Your task to perform on an android device: turn off location history Image 0: 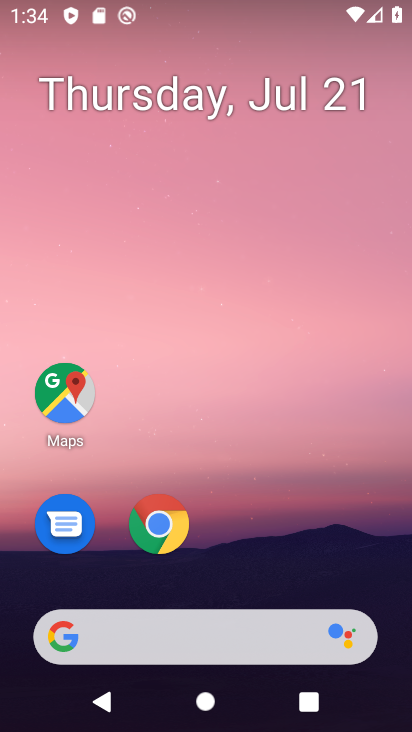
Step 0: drag from (269, 502) to (256, 2)
Your task to perform on an android device: turn off location history Image 1: 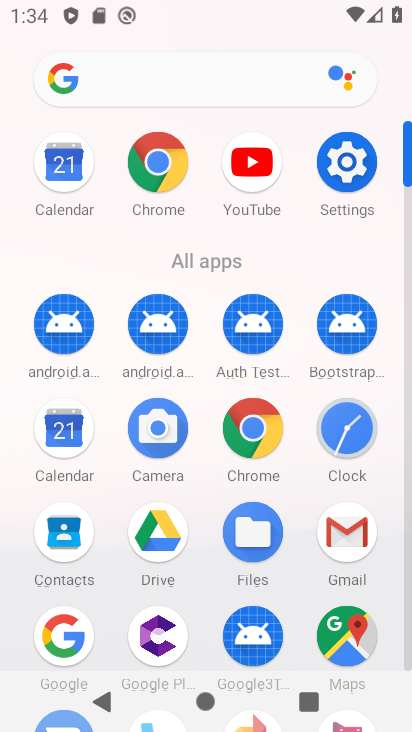
Step 1: click (349, 165)
Your task to perform on an android device: turn off location history Image 2: 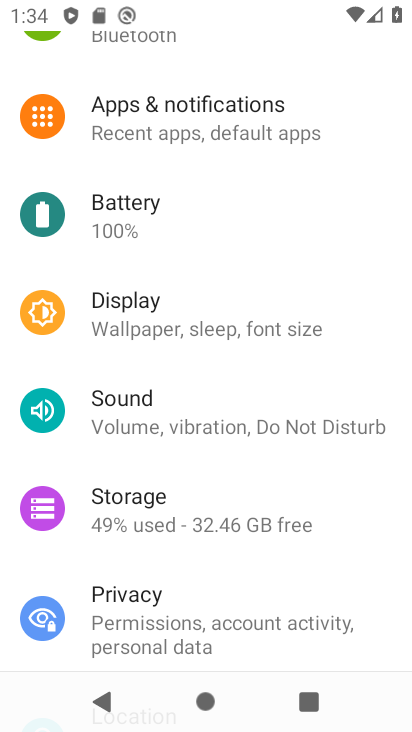
Step 2: drag from (236, 558) to (242, 75)
Your task to perform on an android device: turn off location history Image 3: 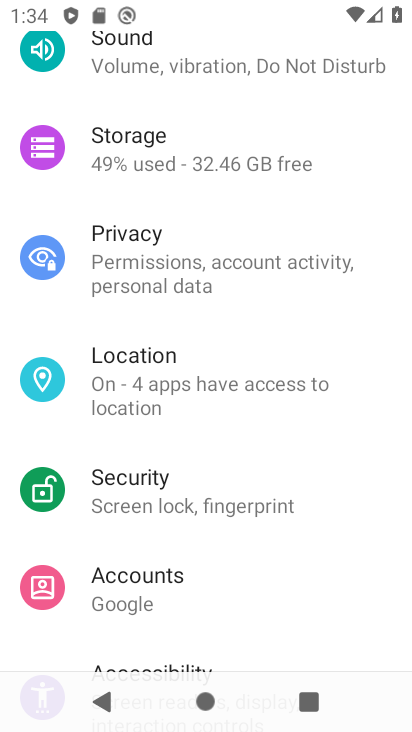
Step 3: click (208, 371)
Your task to perform on an android device: turn off location history Image 4: 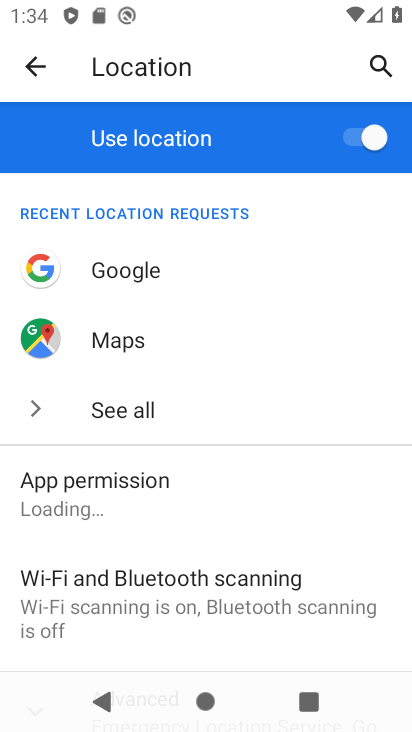
Step 4: drag from (201, 509) to (203, 147)
Your task to perform on an android device: turn off location history Image 5: 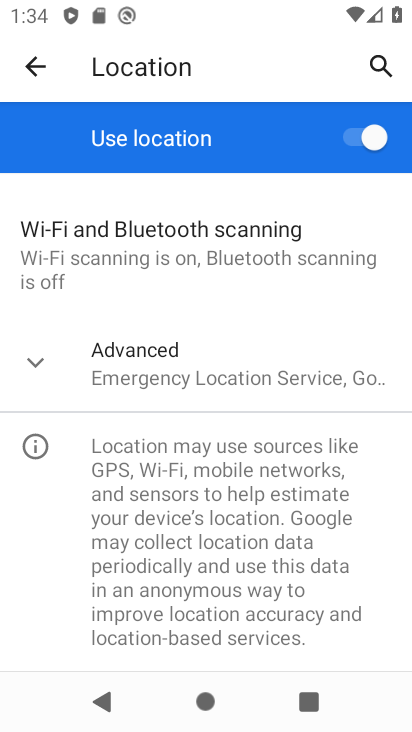
Step 5: click (35, 360)
Your task to perform on an android device: turn off location history Image 6: 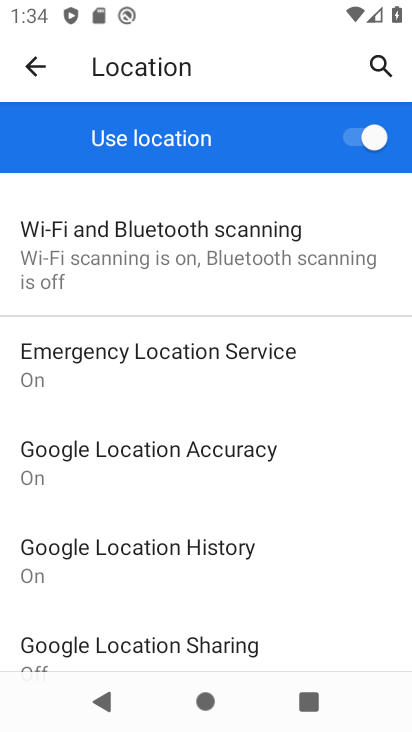
Step 6: click (176, 547)
Your task to perform on an android device: turn off location history Image 7: 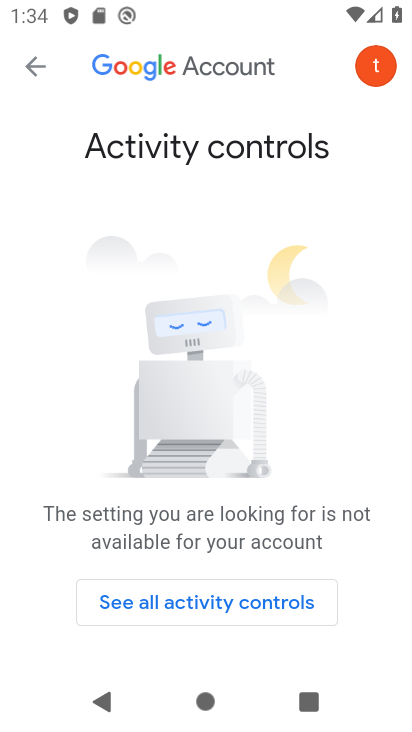
Step 7: click (177, 593)
Your task to perform on an android device: turn off location history Image 8: 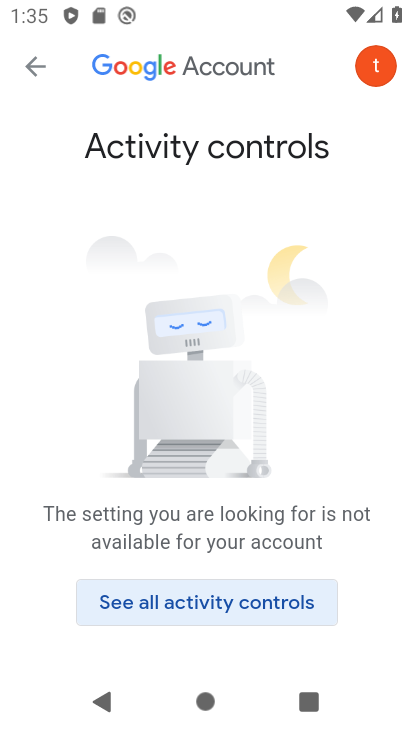
Step 8: click (245, 593)
Your task to perform on an android device: turn off location history Image 9: 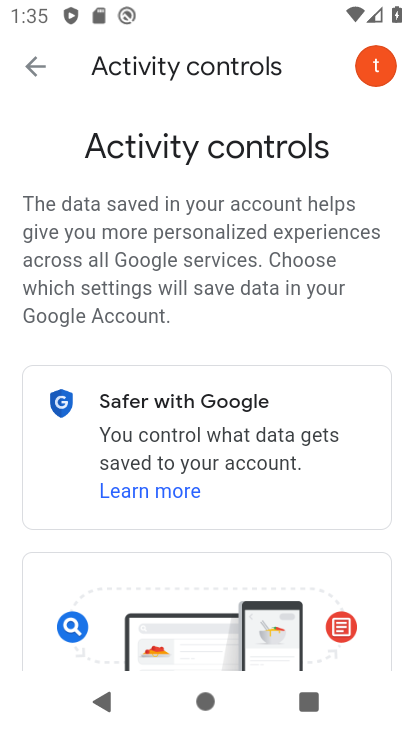
Step 9: drag from (241, 546) to (238, 148)
Your task to perform on an android device: turn off location history Image 10: 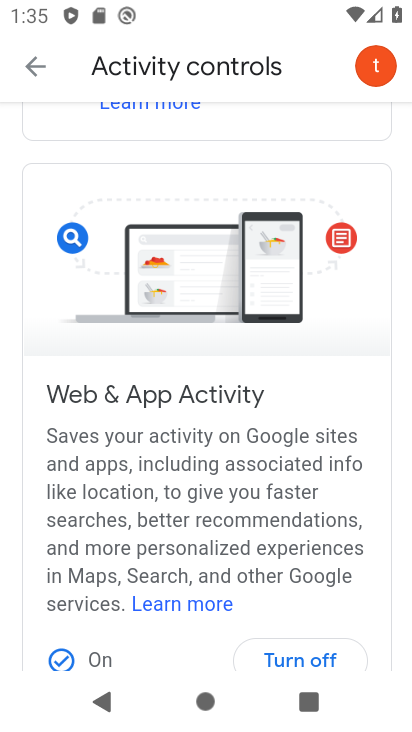
Step 10: drag from (223, 537) to (228, 352)
Your task to perform on an android device: turn off location history Image 11: 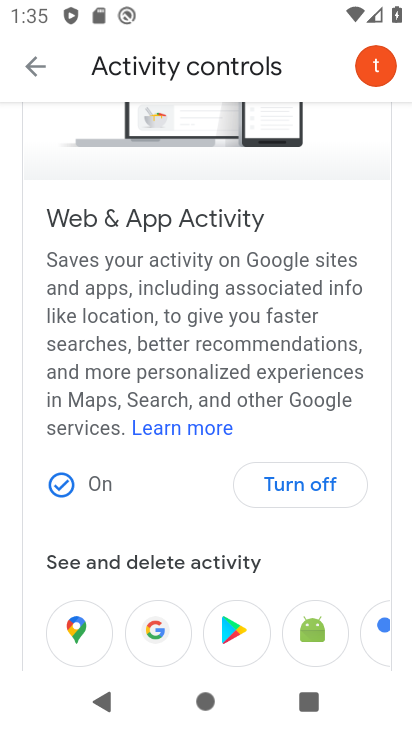
Step 11: click (296, 478)
Your task to perform on an android device: turn off location history Image 12: 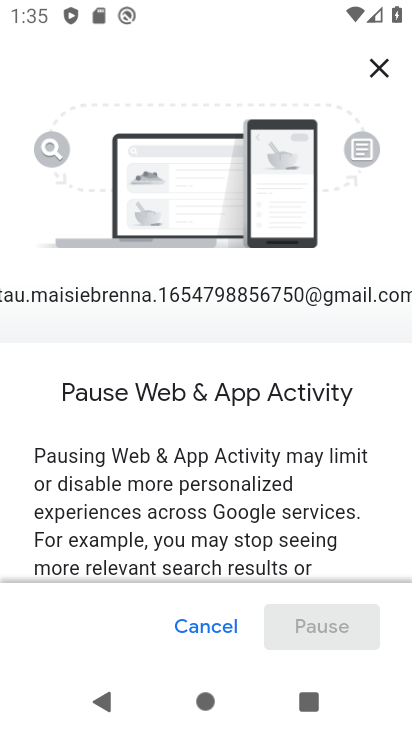
Step 12: drag from (231, 538) to (233, 162)
Your task to perform on an android device: turn off location history Image 13: 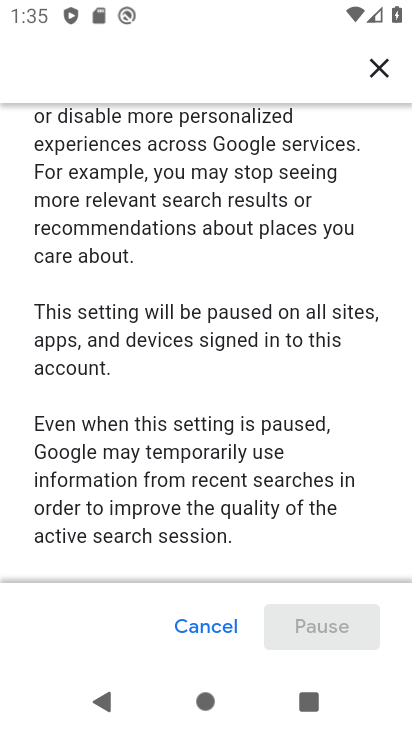
Step 13: drag from (224, 470) to (252, 163)
Your task to perform on an android device: turn off location history Image 14: 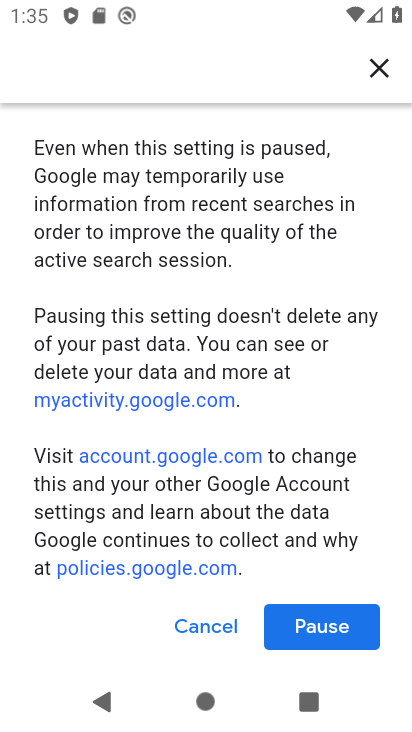
Step 14: click (318, 624)
Your task to perform on an android device: turn off location history Image 15: 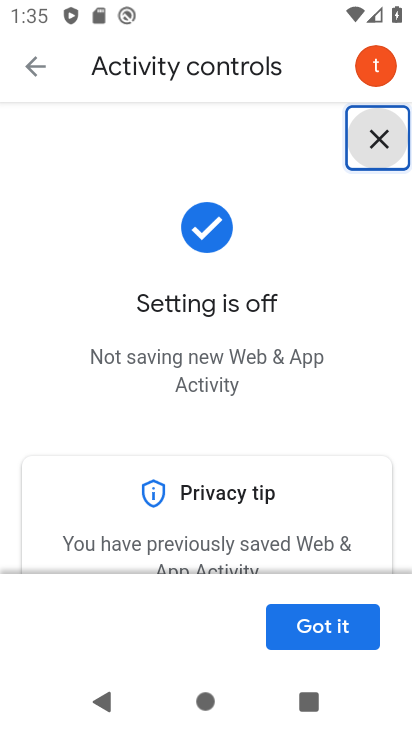
Step 15: click (318, 621)
Your task to perform on an android device: turn off location history Image 16: 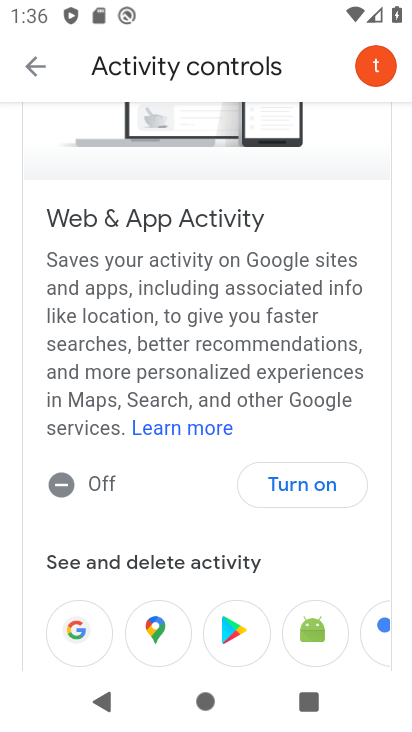
Step 16: task complete